Your task to perform on an android device: turn off wifi Image 0: 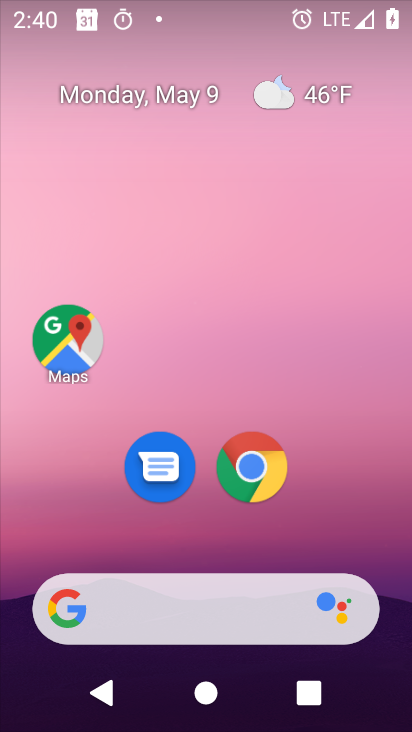
Step 0: drag from (312, 484) to (266, 69)
Your task to perform on an android device: turn off wifi Image 1: 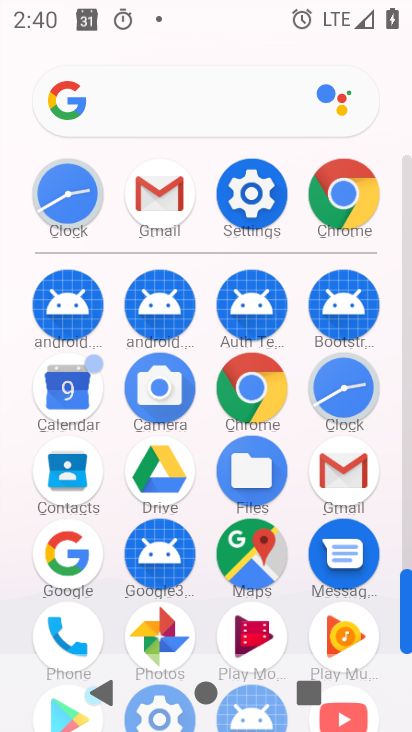
Step 1: click (257, 185)
Your task to perform on an android device: turn off wifi Image 2: 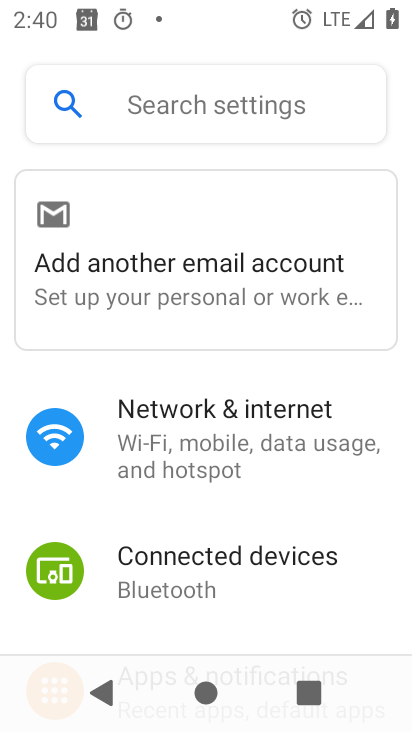
Step 2: click (224, 418)
Your task to perform on an android device: turn off wifi Image 3: 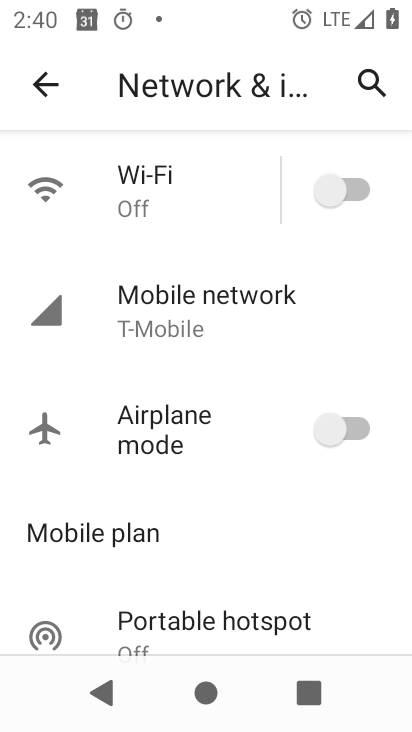
Step 3: task complete